Your task to perform on an android device: manage bookmarks in the chrome app Image 0: 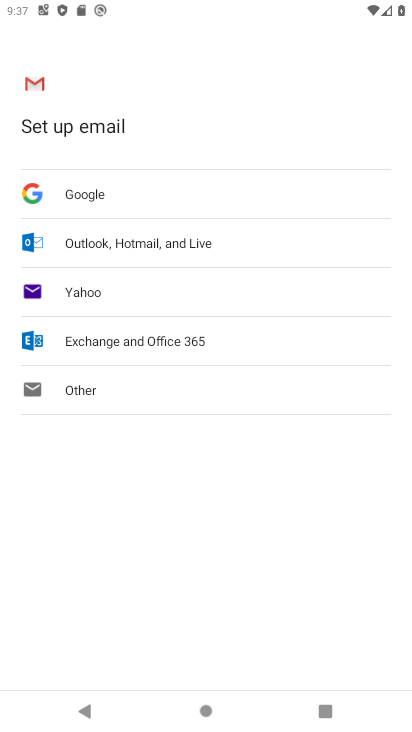
Step 0: press home button
Your task to perform on an android device: manage bookmarks in the chrome app Image 1: 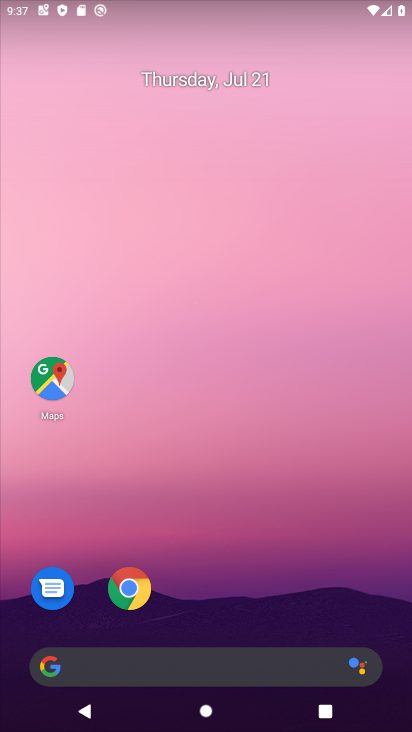
Step 1: click (130, 587)
Your task to perform on an android device: manage bookmarks in the chrome app Image 2: 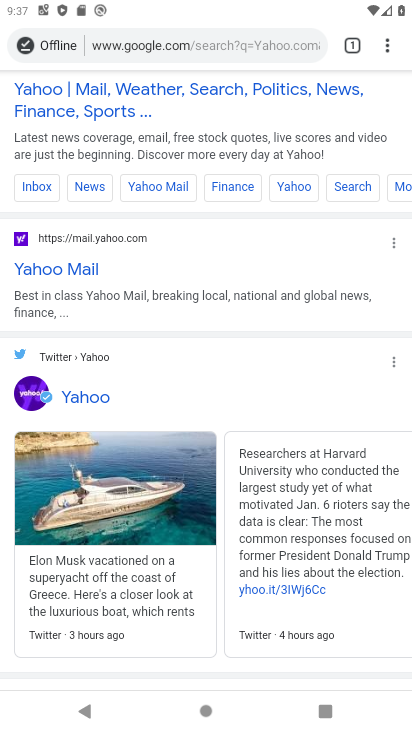
Step 2: click (388, 44)
Your task to perform on an android device: manage bookmarks in the chrome app Image 3: 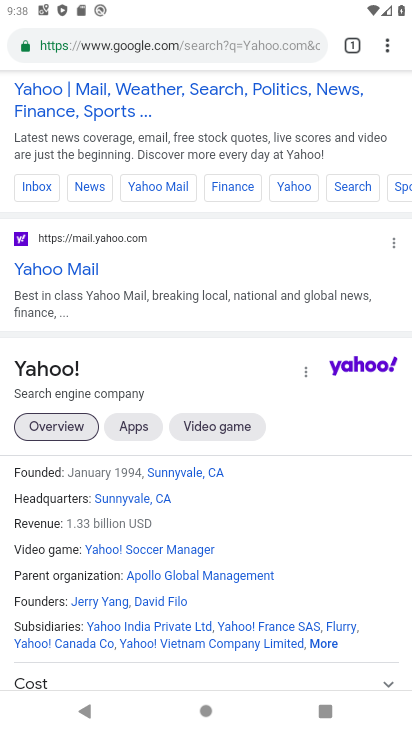
Step 3: click (390, 45)
Your task to perform on an android device: manage bookmarks in the chrome app Image 4: 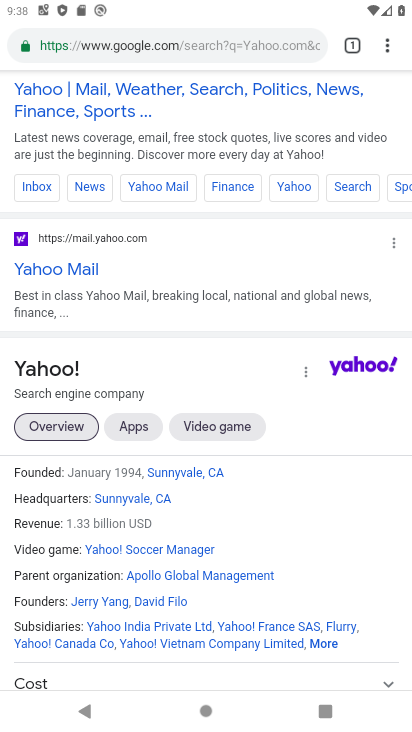
Step 4: click (388, 45)
Your task to perform on an android device: manage bookmarks in the chrome app Image 5: 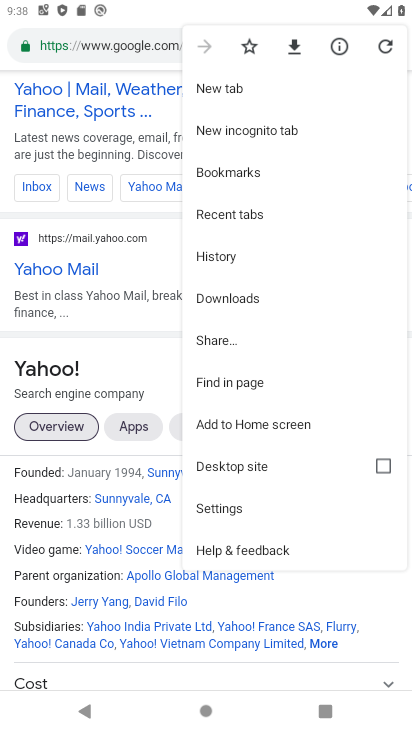
Step 5: click (220, 164)
Your task to perform on an android device: manage bookmarks in the chrome app Image 6: 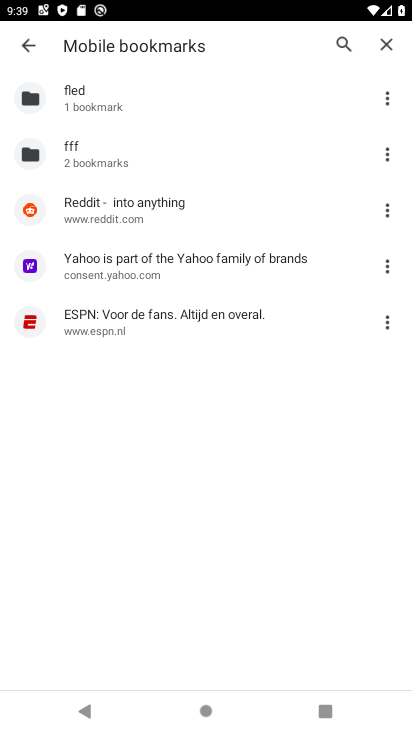
Step 6: click (391, 319)
Your task to perform on an android device: manage bookmarks in the chrome app Image 7: 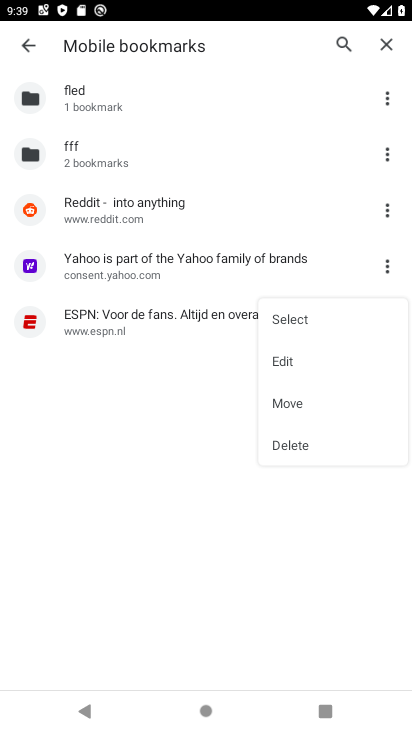
Step 7: click (281, 442)
Your task to perform on an android device: manage bookmarks in the chrome app Image 8: 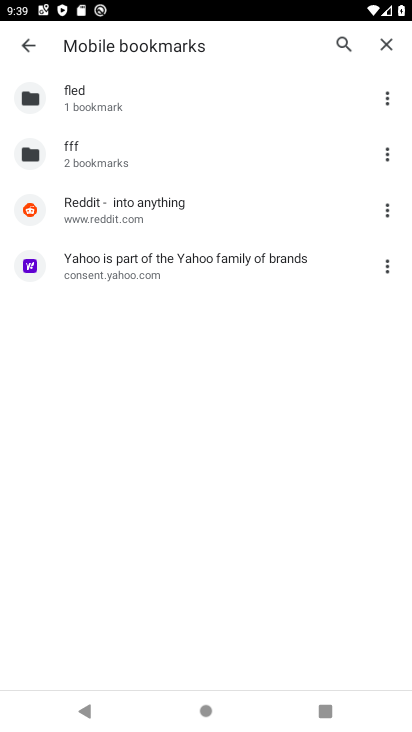
Step 8: task complete